Your task to perform on an android device: stop showing notifications on the lock screen Image 0: 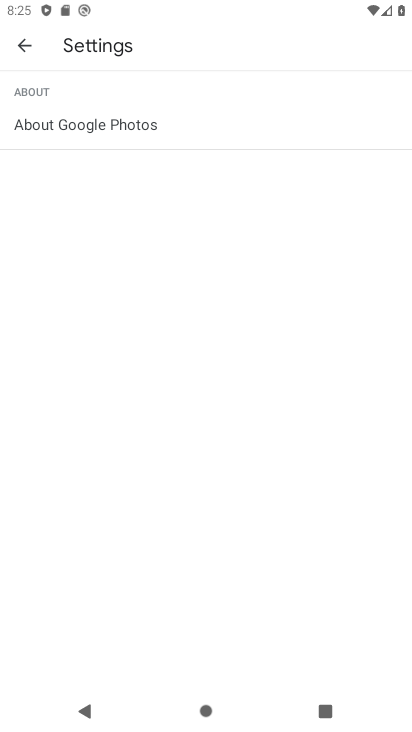
Step 0: press home button
Your task to perform on an android device: stop showing notifications on the lock screen Image 1: 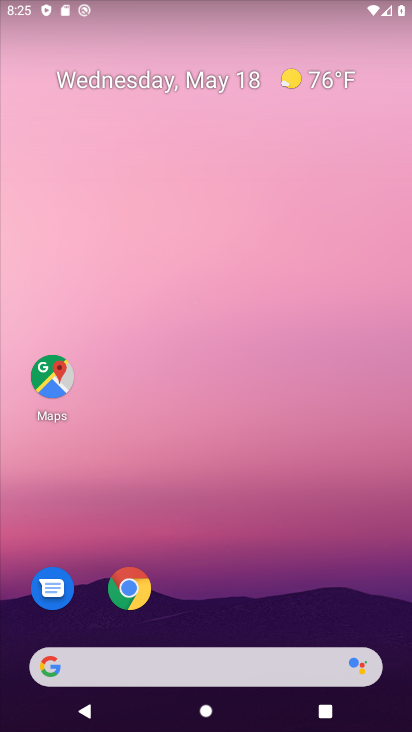
Step 1: drag from (278, 593) to (249, 12)
Your task to perform on an android device: stop showing notifications on the lock screen Image 2: 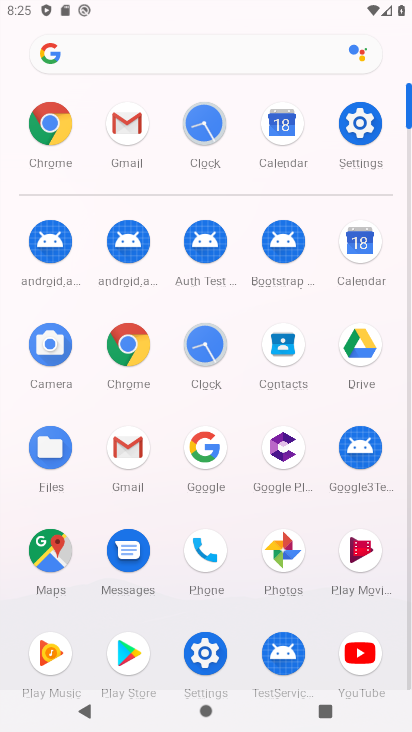
Step 2: click (362, 183)
Your task to perform on an android device: stop showing notifications on the lock screen Image 3: 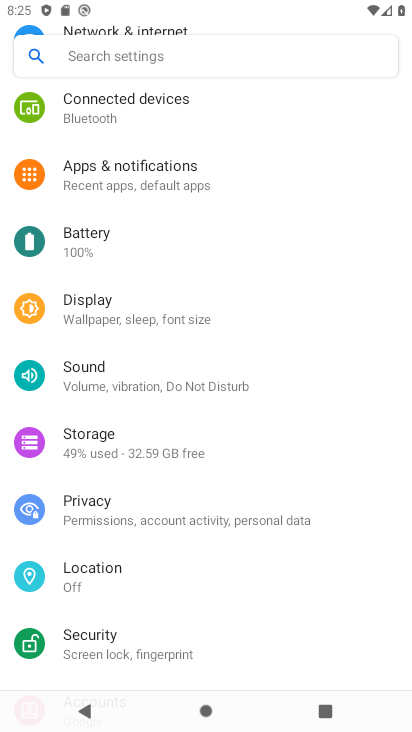
Step 3: drag from (161, 593) to (164, 441)
Your task to perform on an android device: stop showing notifications on the lock screen Image 4: 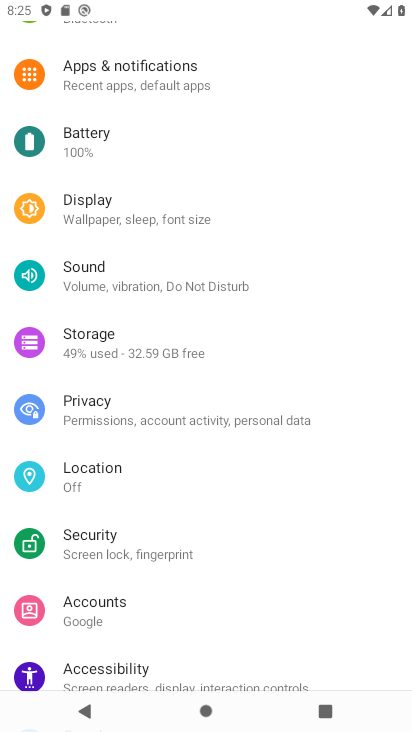
Step 4: click (159, 81)
Your task to perform on an android device: stop showing notifications on the lock screen Image 5: 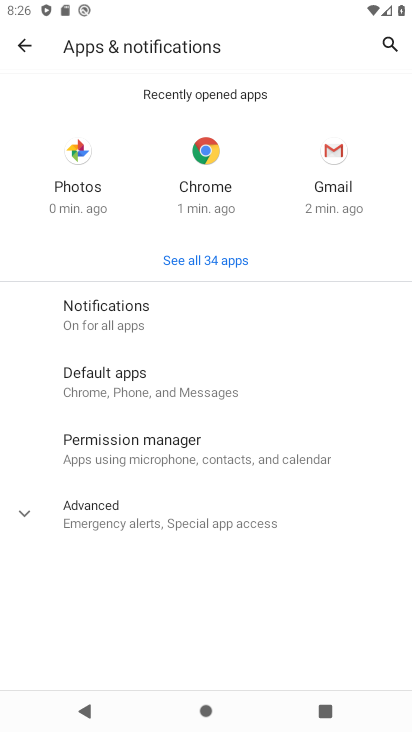
Step 5: click (209, 523)
Your task to perform on an android device: stop showing notifications on the lock screen Image 6: 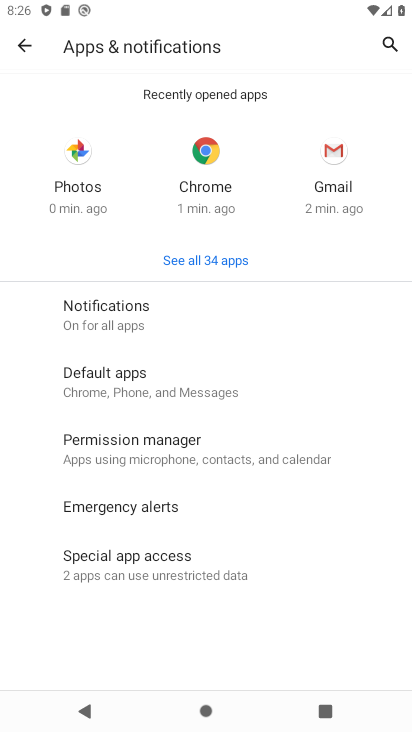
Step 6: click (146, 325)
Your task to perform on an android device: stop showing notifications on the lock screen Image 7: 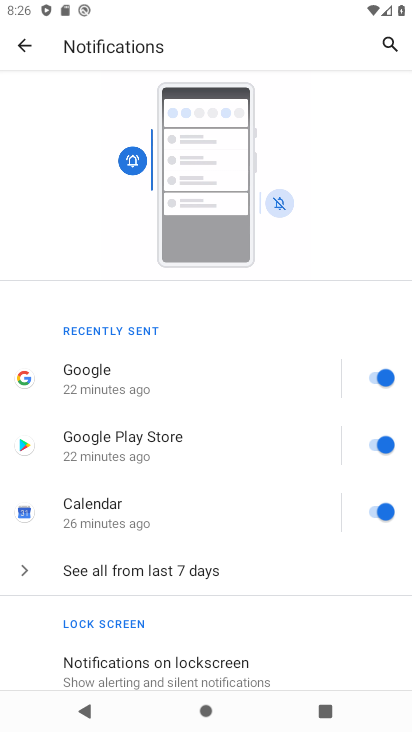
Step 7: drag from (86, 535) to (120, 344)
Your task to perform on an android device: stop showing notifications on the lock screen Image 8: 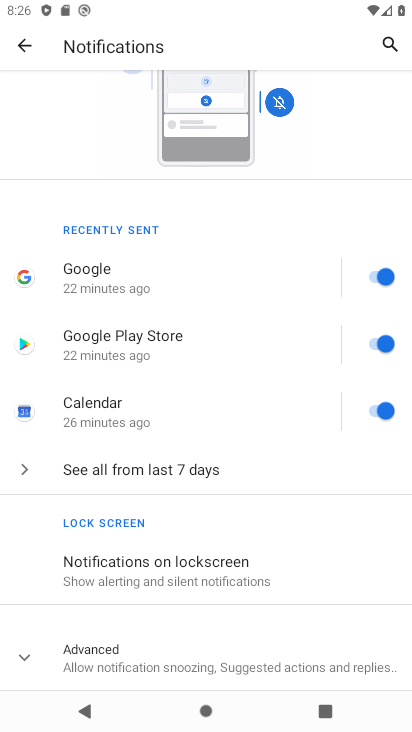
Step 8: click (162, 584)
Your task to perform on an android device: stop showing notifications on the lock screen Image 9: 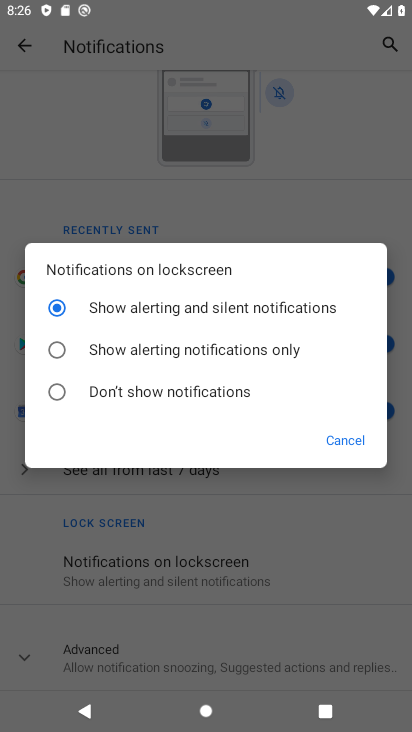
Step 9: click (222, 381)
Your task to perform on an android device: stop showing notifications on the lock screen Image 10: 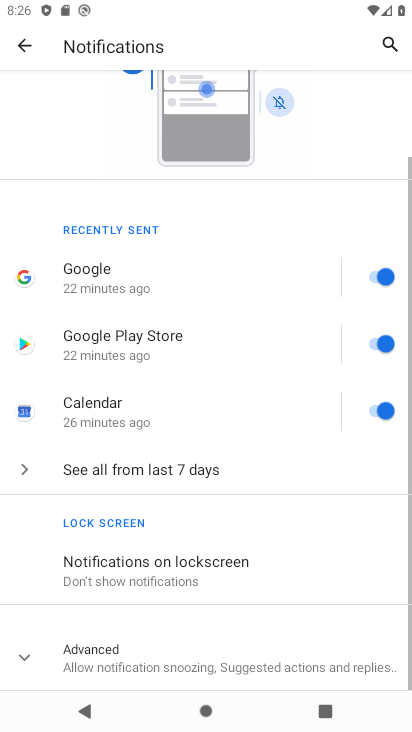
Step 10: task complete